Your task to perform on an android device: What's on my calendar today? Image 0: 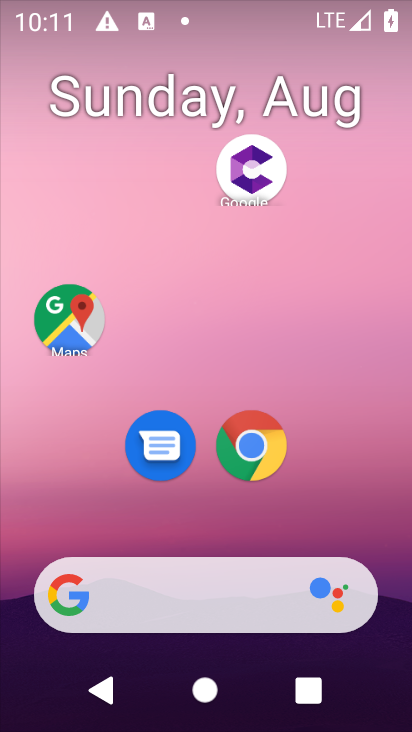
Step 0: drag from (200, 508) to (272, 14)
Your task to perform on an android device: What's on my calendar today? Image 1: 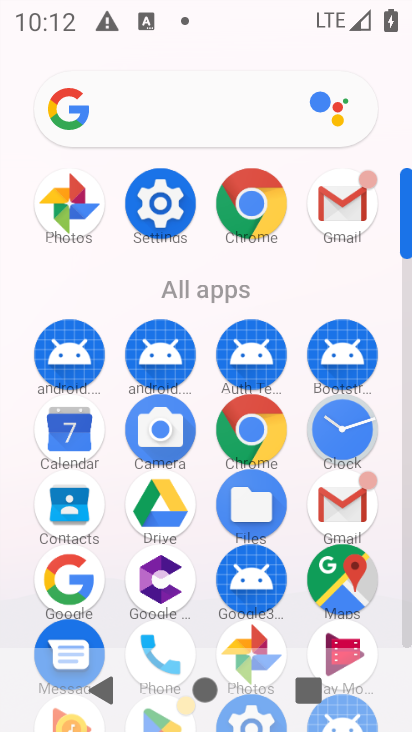
Step 1: click (61, 434)
Your task to perform on an android device: What's on my calendar today? Image 2: 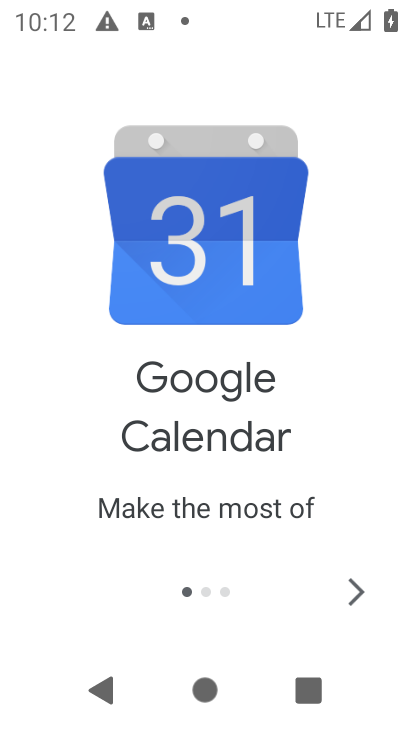
Step 2: click (349, 593)
Your task to perform on an android device: What's on my calendar today? Image 3: 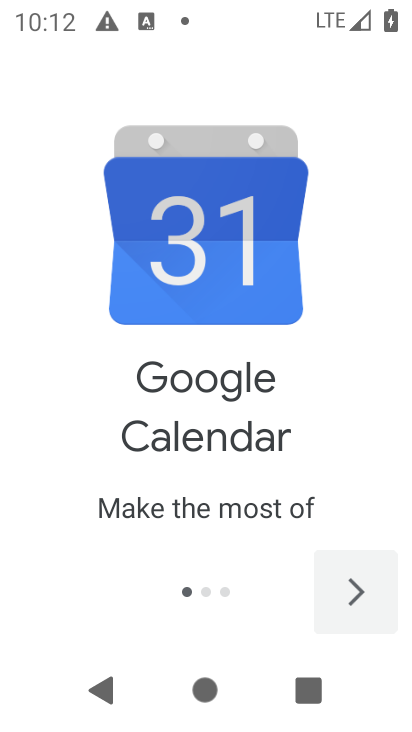
Step 3: click (349, 593)
Your task to perform on an android device: What's on my calendar today? Image 4: 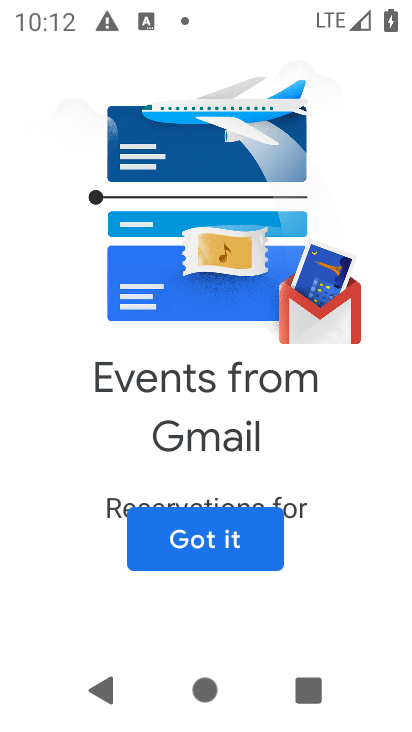
Step 4: click (349, 593)
Your task to perform on an android device: What's on my calendar today? Image 5: 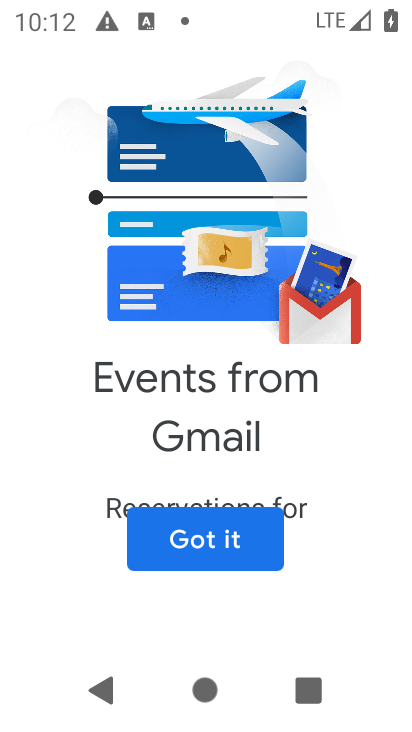
Step 5: click (226, 555)
Your task to perform on an android device: What's on my calendar today? Image 6: 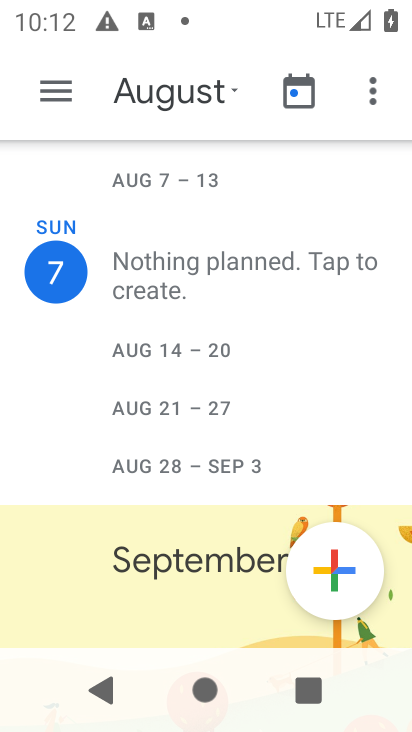
Step 6: click (66, 262)
Your task to perform on an android device: What's on my calendar today? Image 7: 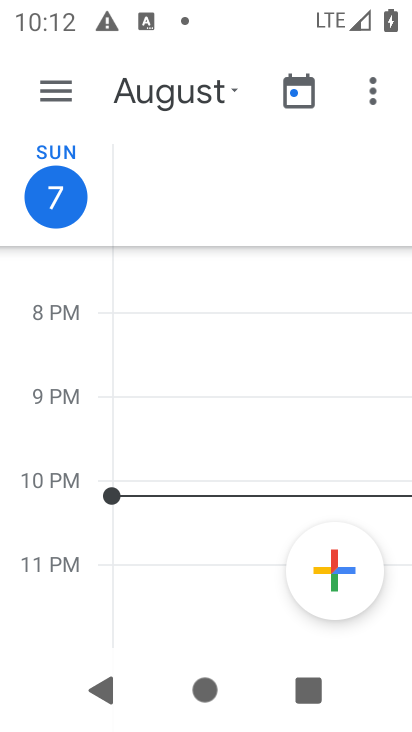
Step 7: click (97, 205)
Your task to perform on an android device: What's on my calendar today? Image 8: 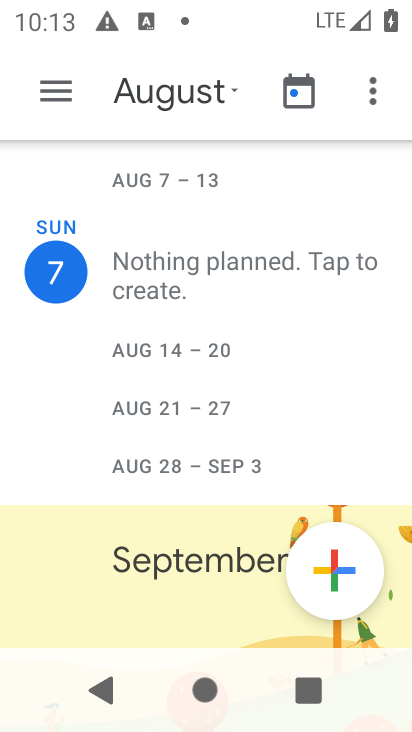
Step 8: click (89, 275)
Your task to perform on an android device: What's on my calendar today? Image 9: 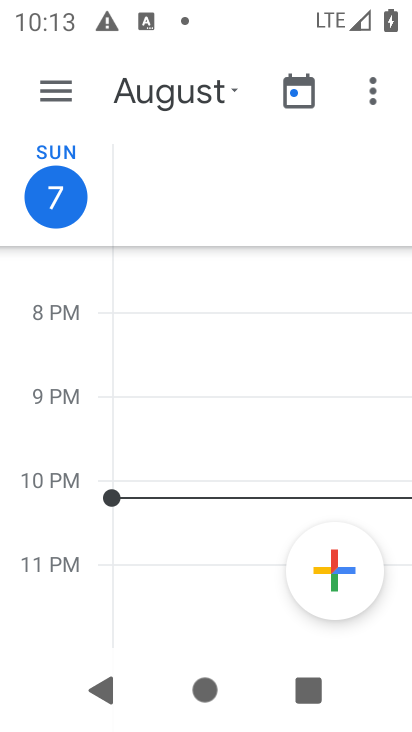
Step 9: task complete